Your task to perform on an android device: Open settings Image 0: 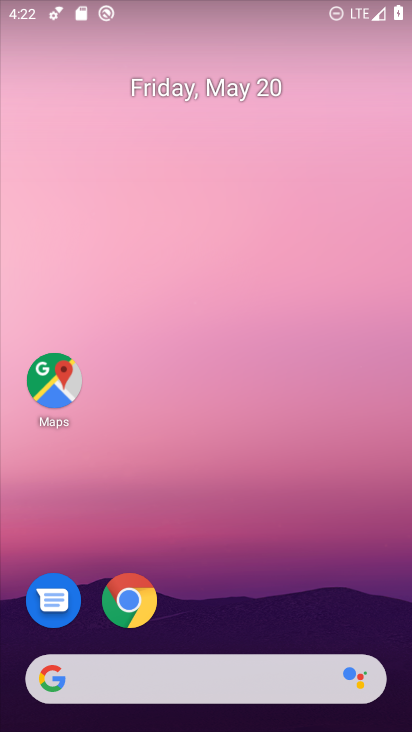
Step 0: drag from (184, 647) to (241, 141)
Your task to perform on an android device: Open settings Image 1: 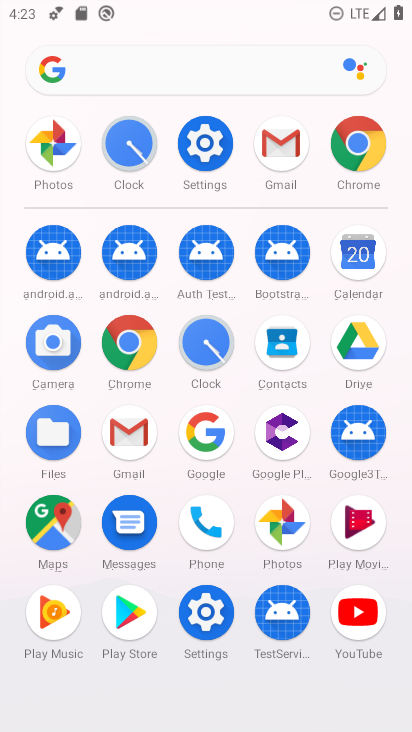
Step 1: click (194, 134)
Your task to perform on an android device: Open settings Image 2: 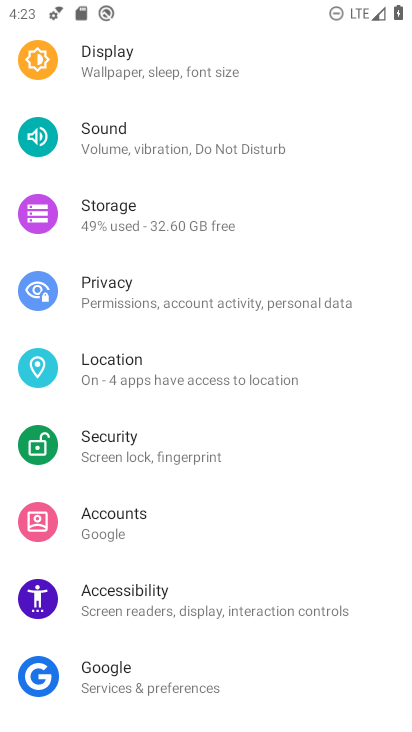
Step 2: task complete